Your task to perform on an android device: View the shopping cart on newegg. Add "usb-b" to the cart on newegg, then select checkout. Image 0: 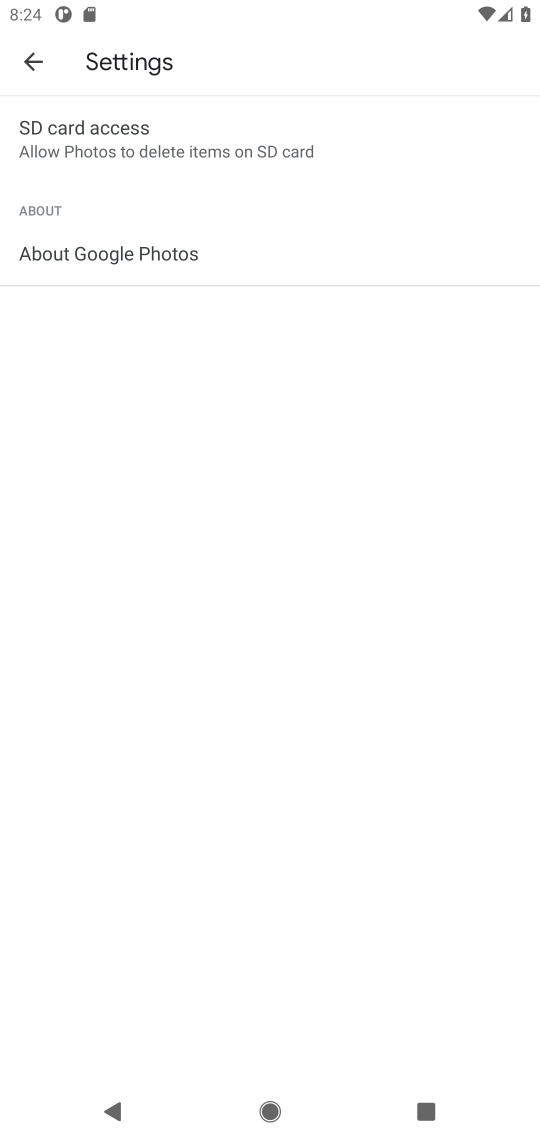
Step 0: press home button
Your task to perform on an android device: View the shopping cart on newegg. Add "usb-b" to the cart on newegg, then select checkout. Image 1: 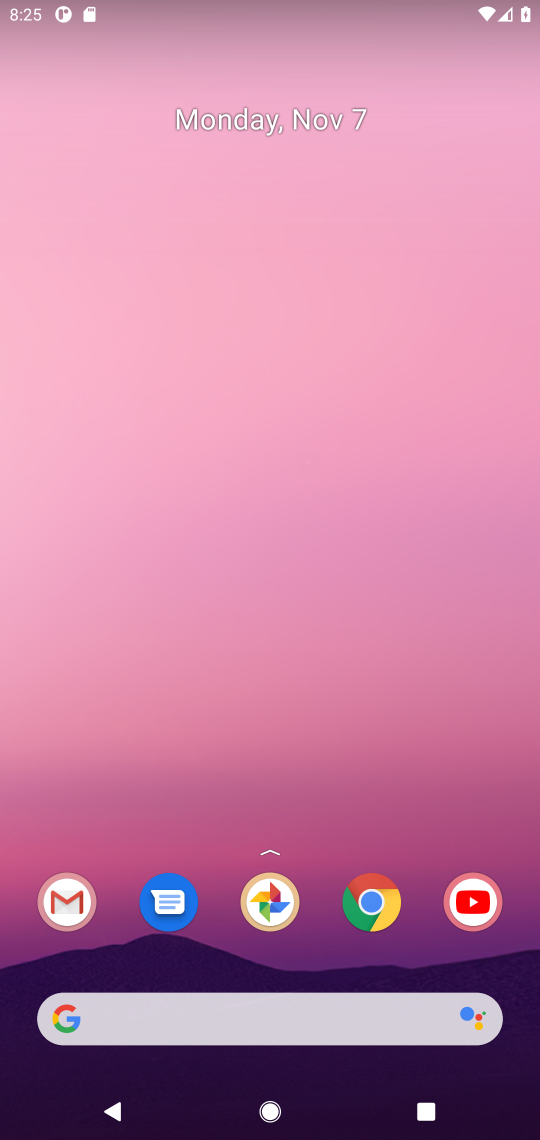
Step 1: click (359, 914)
Your task to perform on an android device: View the shopping cart on newegg. Add "usb-b" to the cart on newegg, then select checkout. Image 2: 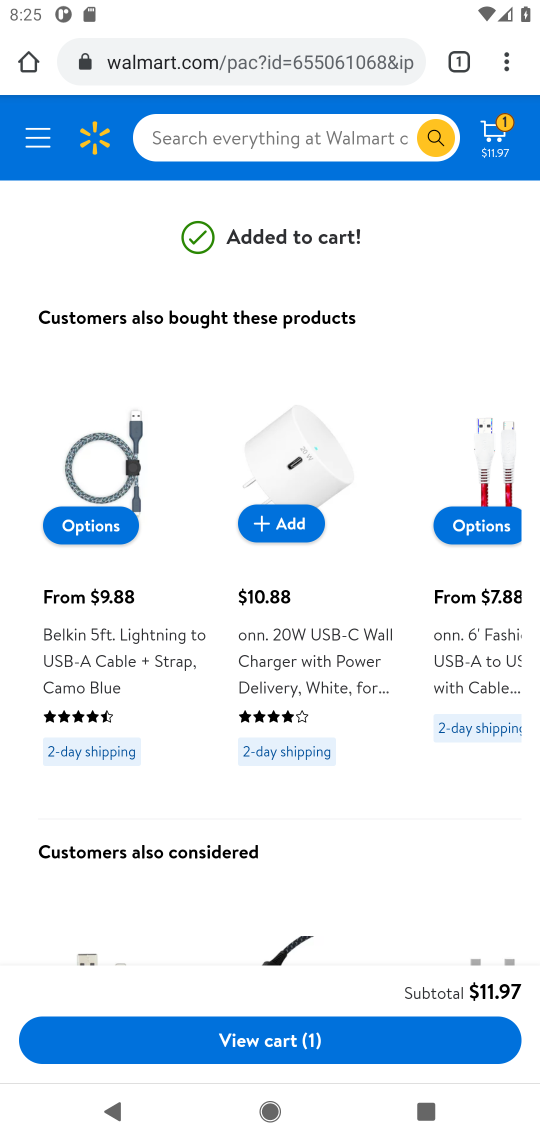
Step 2: click (254, 65)
Your task to perform on an android device: View the shopping cart on newegg. Add "usb-b" to the cart on newegg, then select checkout. Image 3: 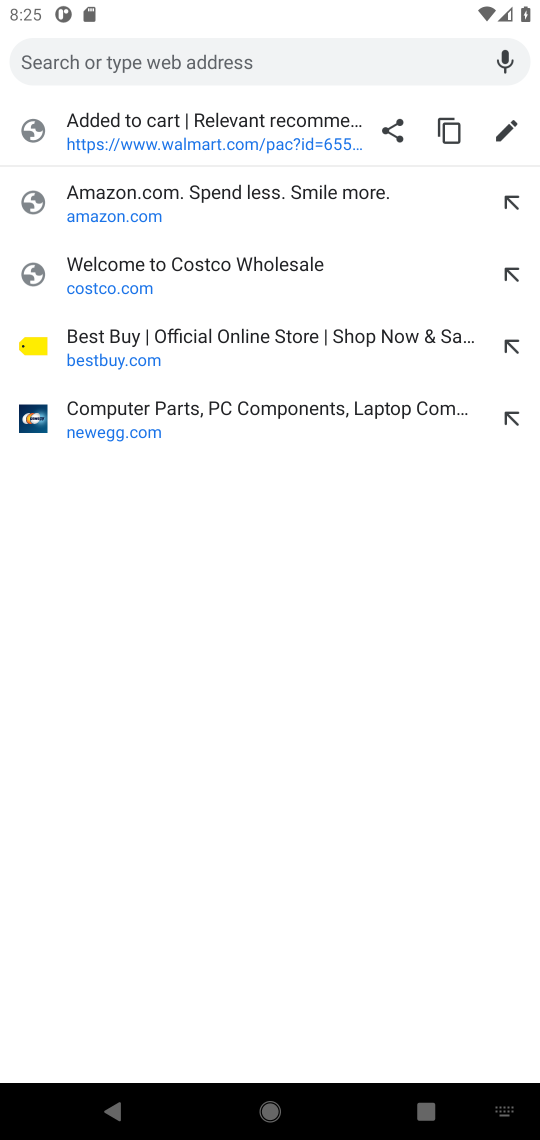
Step 3: click (138, 422)
Your task to perform on an android device: View the shopping cart on newegg. Add "usb-b" to the cart on newegg, then select checkout. Image 4: 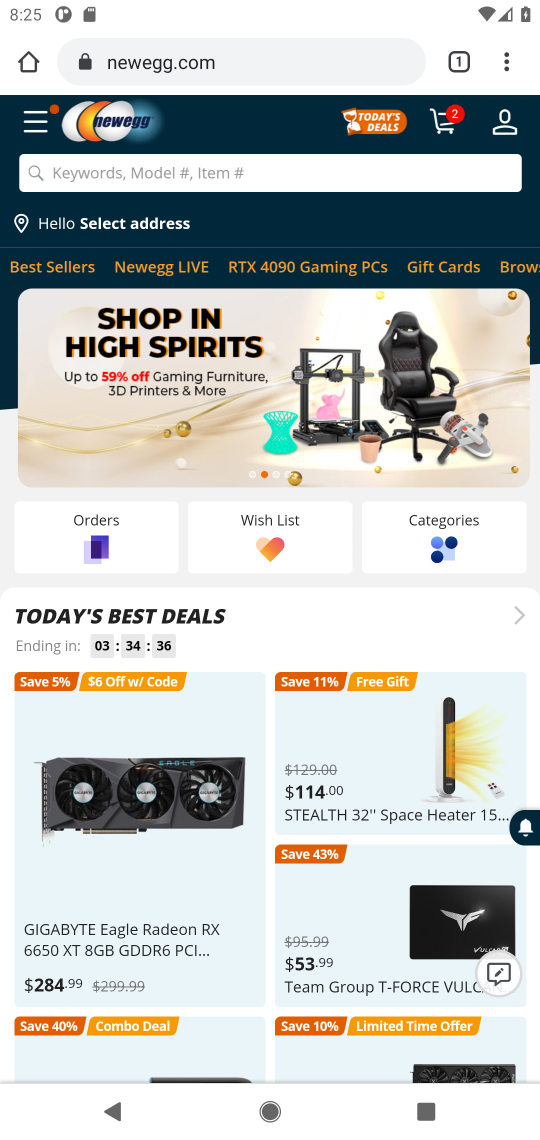
Step 4: click (441, 112)
Your task to perform on an android device: View the shopping cart on newegg. Add "usb-b" to the cart on newegg, then select checkout. Image 5: 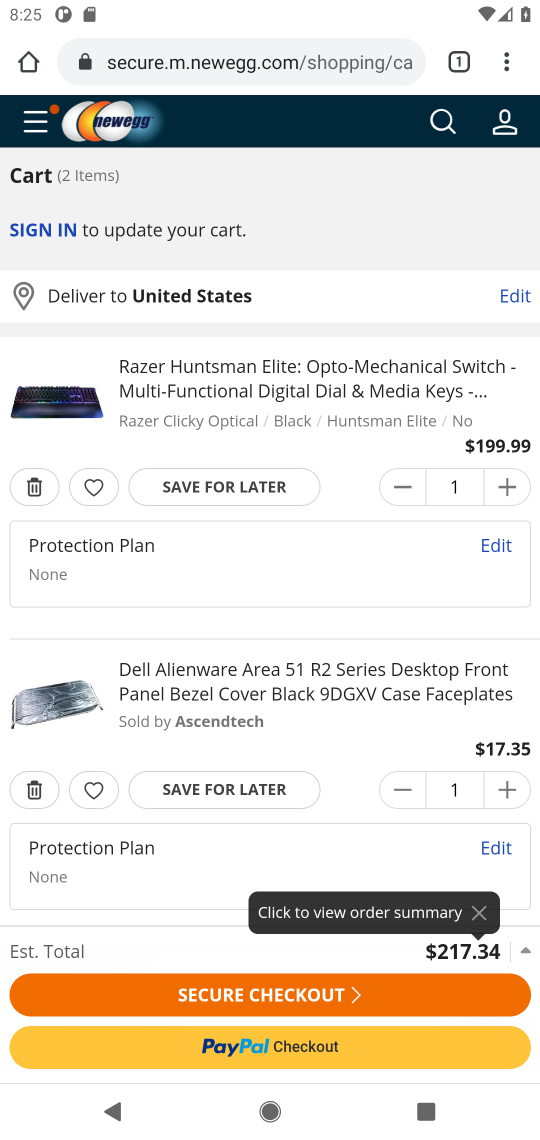
Step 5: click (446, 127)
Your task to perform on an android device: View the shopping cart on newegg. Add "usb-b" to the cart on newegg, then select checkout. Image 6: 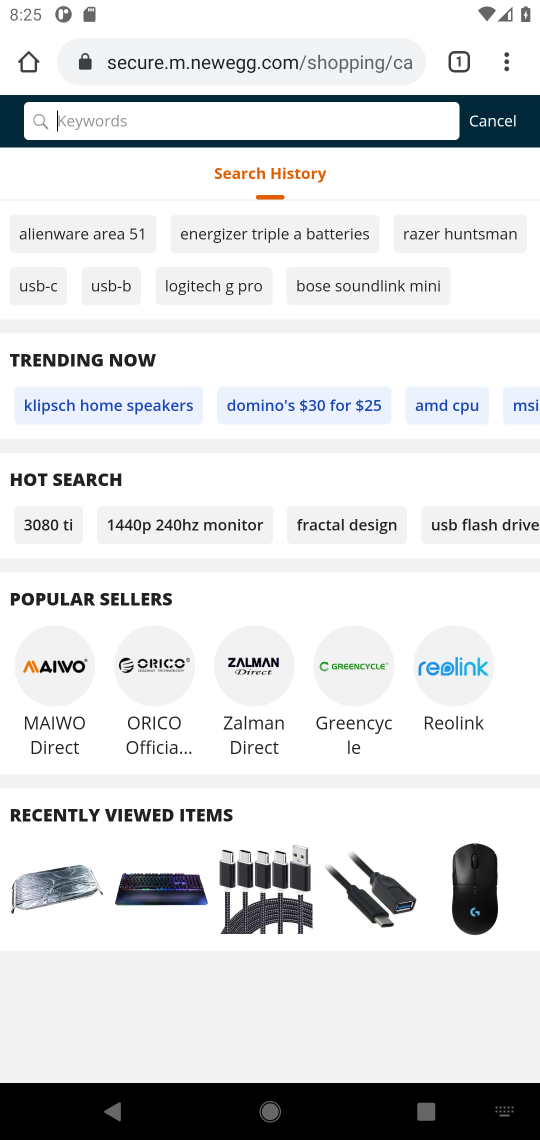
Step 6: type "usb-b"
Your task to perform on an android device: View the shopping cart on newegg. Add "usb-b" to the cart on newegg, then select checkout. Image 7: 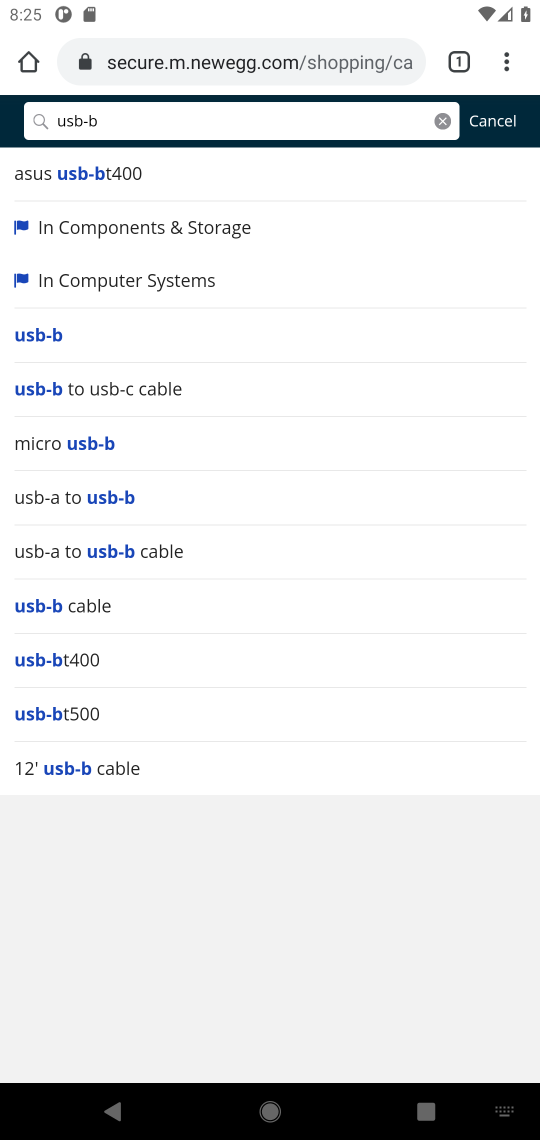
Step 7: click (36, 339)
Your task to perform on an android device: View the shopping cart on newegg. Add "usb-b" to the cart on newegg, then select checkout. Image 8: 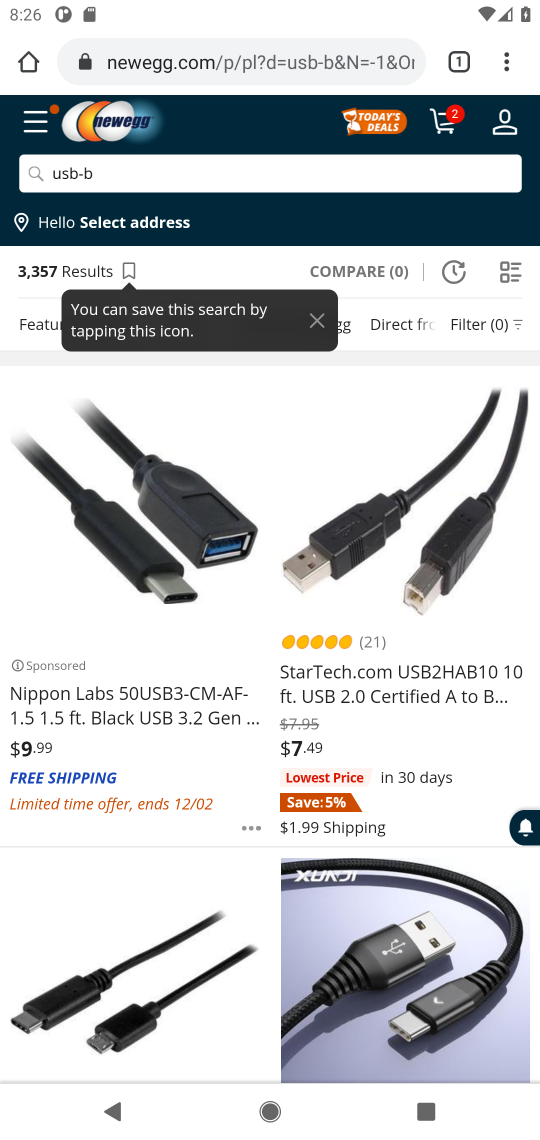
Step 8: drag from (224, 860) to (210, 636)
Your task to perform on an android device: View the shopping cart on newegg. Add "usb-b" to the cart on newegg, then select checkout. Image 9: 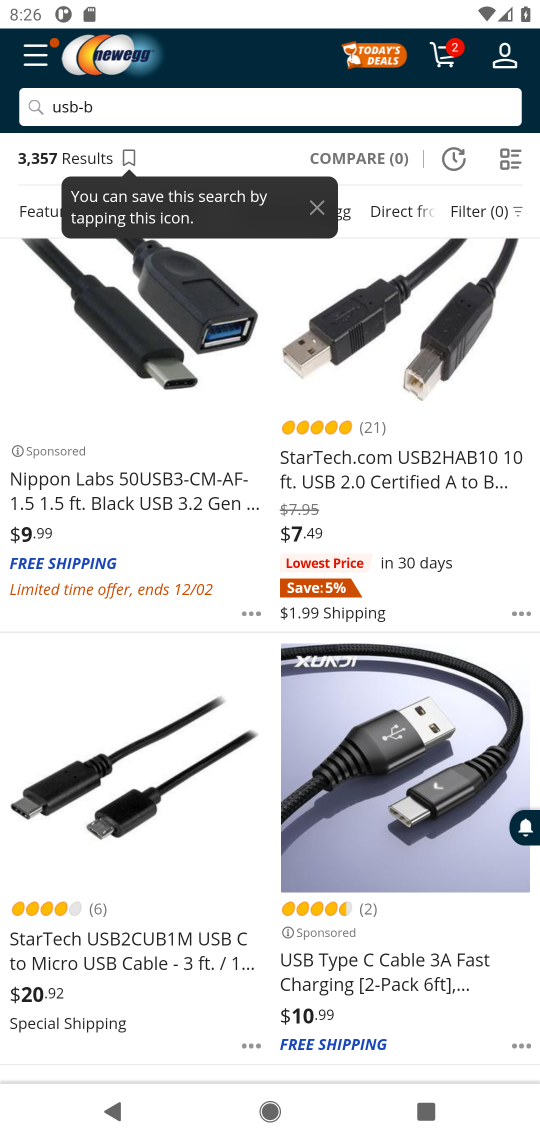
Step 9: click (404, 460)
Your task to perform on an android device: View the shopping cart on newegg. Add "usb-b" to the cart on newegg, then select checkout. Image 10: 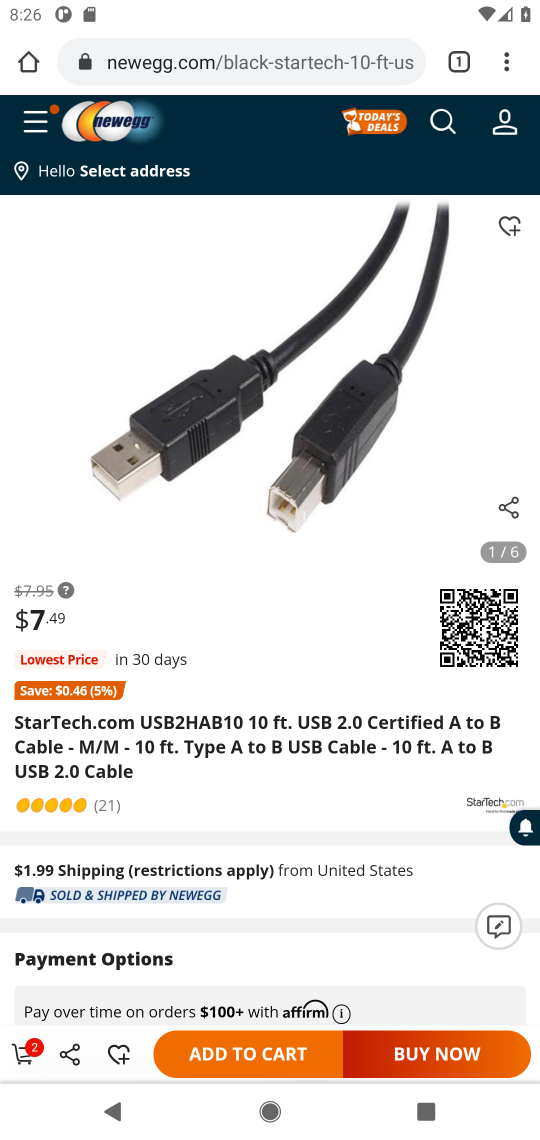
Step 10: press back button
Your task to perform on an android device: View the shopping cart on newegg. Add "usb-b" to the cart on newegg, then select checkout. Image 11: 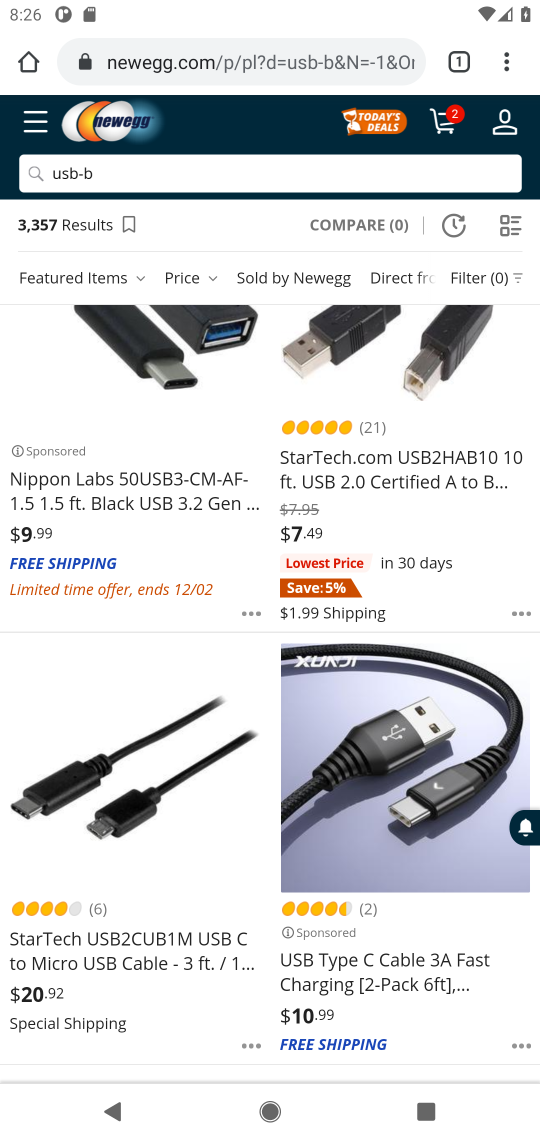
Step 11: drag from (319, 891) to (290, 390)
Your task to perform on an android device: View the shopping cart on newegg. Add "usb-b" to the cart on newegg, then select checkout. Image 12: 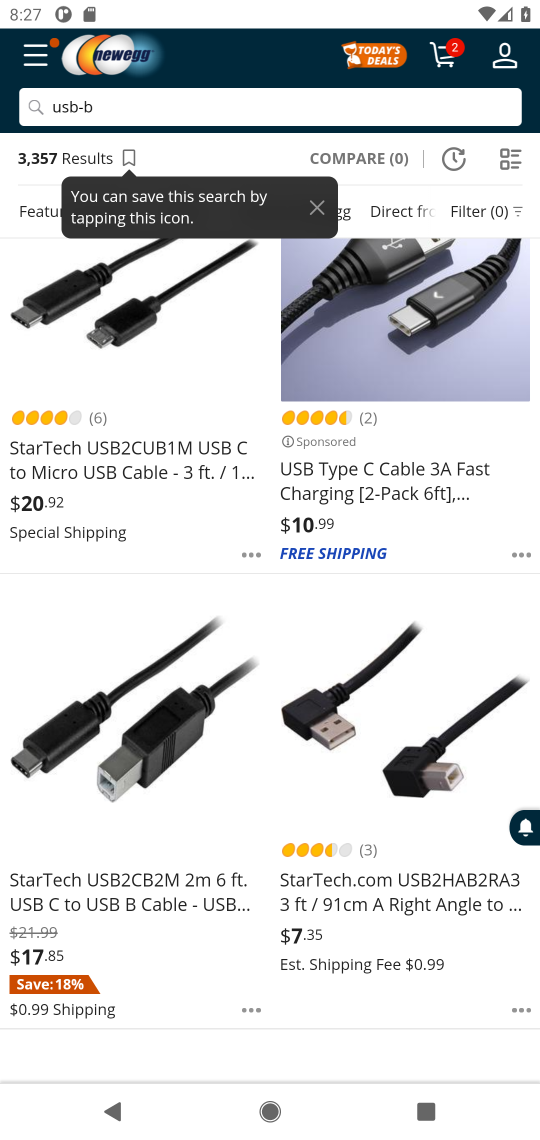
Step 12: click (107, 901)
Your task to perform on an android device: View the shopping cart on newegg. Add "usb-b" to the cart on newegg, then select checkout. Image 13: 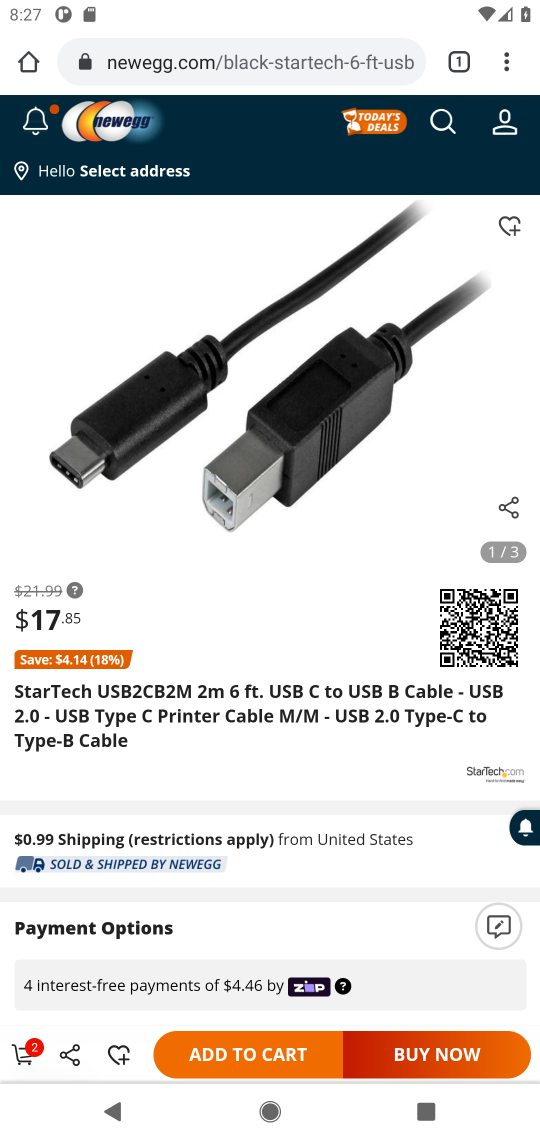
Step 13: click (212, 1059)
Your task to perform on an android device: View the shopping cart on newegg. Add "usb-b" to the cart on newegg, then select checkout. Image 14: 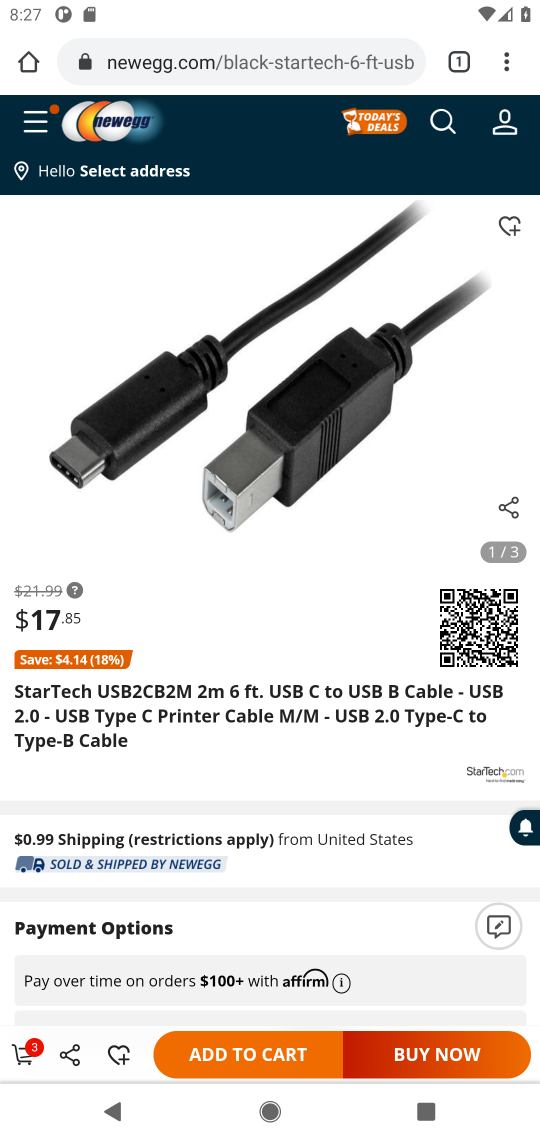
Step 14: click (18, 1053)
Your task to perform on an android device: View the shopping cart on newegg. Add "usb-b" to the cart on newegg, then select checkout. Image 15: 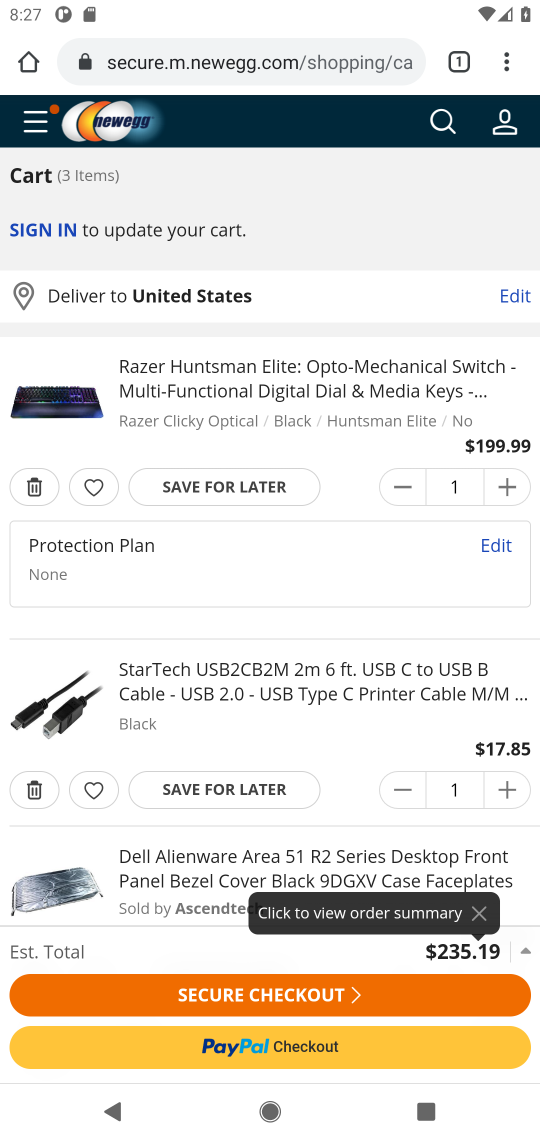
Step 15: click (227, 1000)
Your task to perform on an android device: View the shopping cart on newegg. Add "usb-b" to the cart on newegg, then select checkout. Image 16: 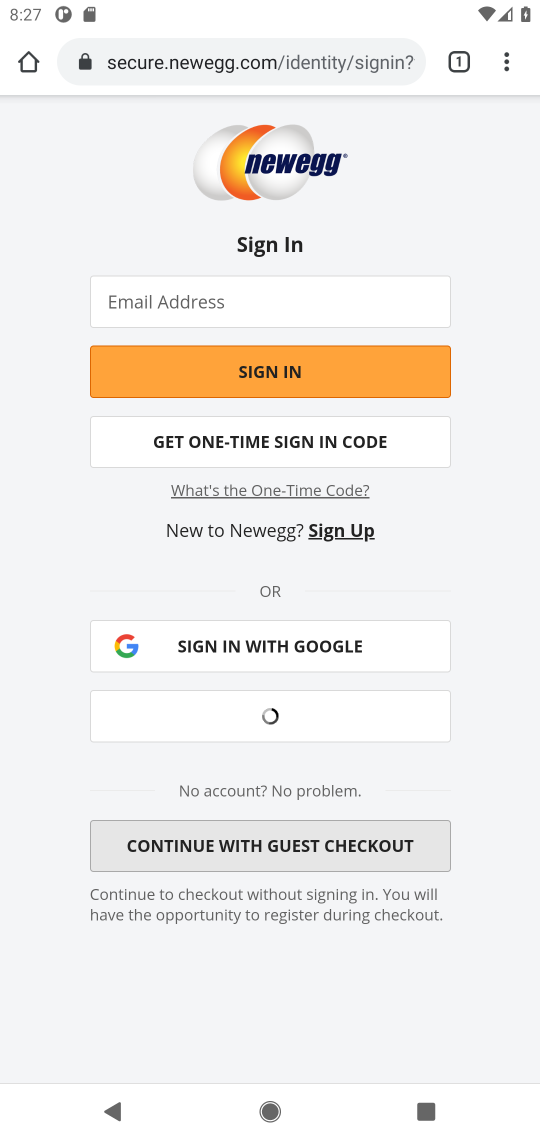
Step 16: task complete